Your task to perform on an android device: Open ESPN.com Image 0: 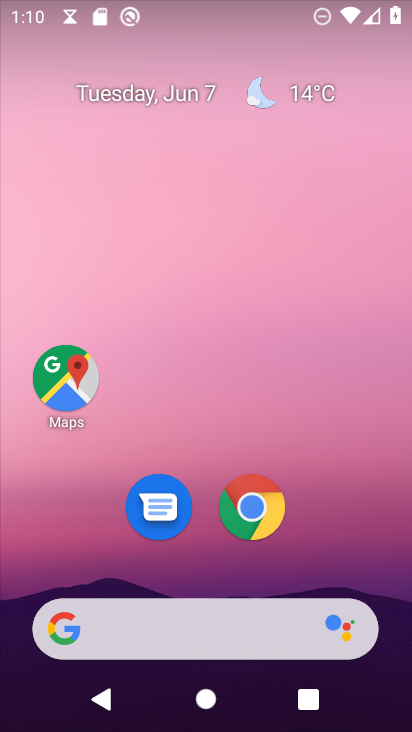
Step 0: click (245, 508)
Your task to perform on an android device: Open ESPN.com Image 1: 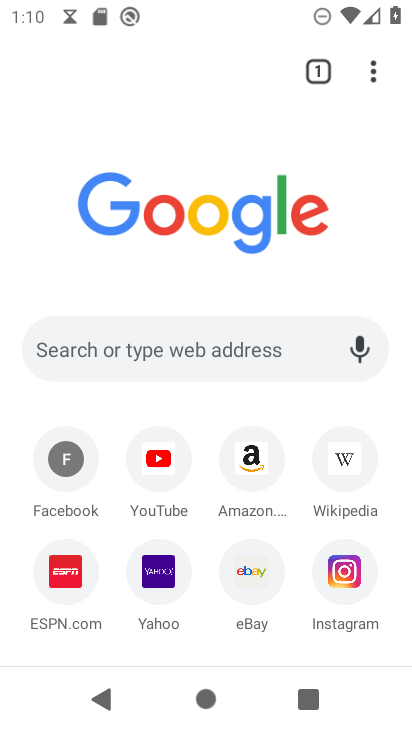
Step 1: click (49, 579)
Your task to perform on an android device: Open ESPN.com Image 2: 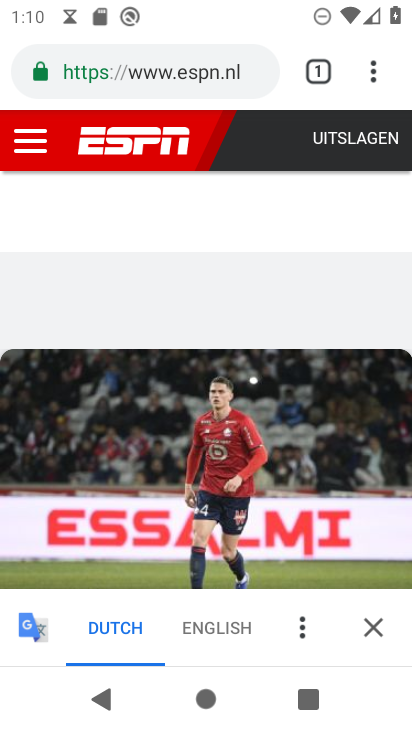
Step 2: task complete